Your task to perform on an android device: toggle location history Image 0: 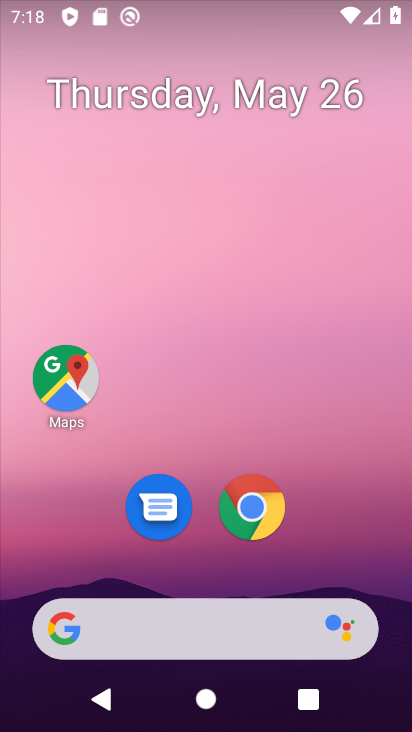
Step 0: drag from (287, 560) to (255, 71)
Your task to perform on an android device: toggle location history Image 1: 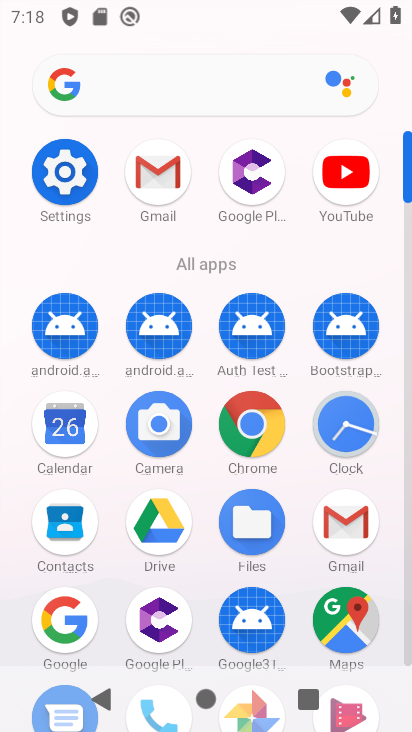
Step 1: click (64, 167)
Your task to perform on an android device: toggle location history Image 2: 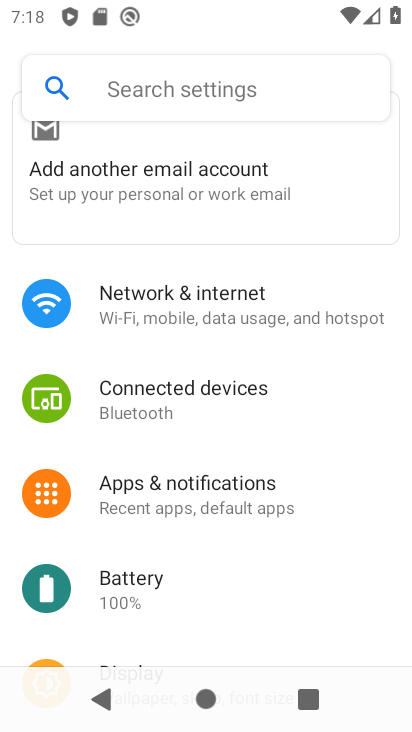
Step 2: drag from (143, 573) to (295, 3)
Your task to perform on an android device: toggle location history Image 3: 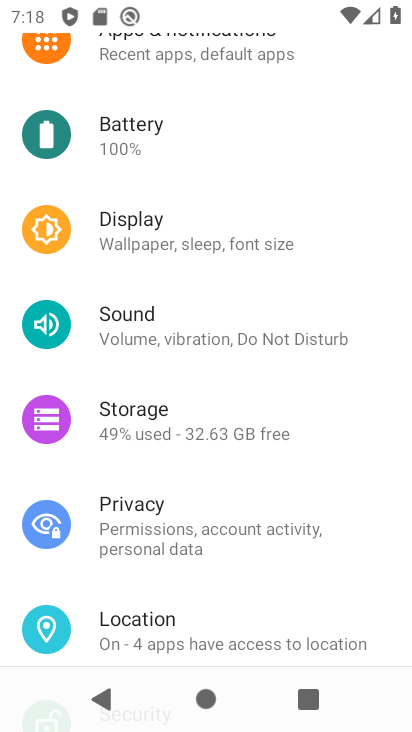
Step 3: drag from (135, 594) to (276, 4)
Your task to perform on an android device: toggle location history Image 4: 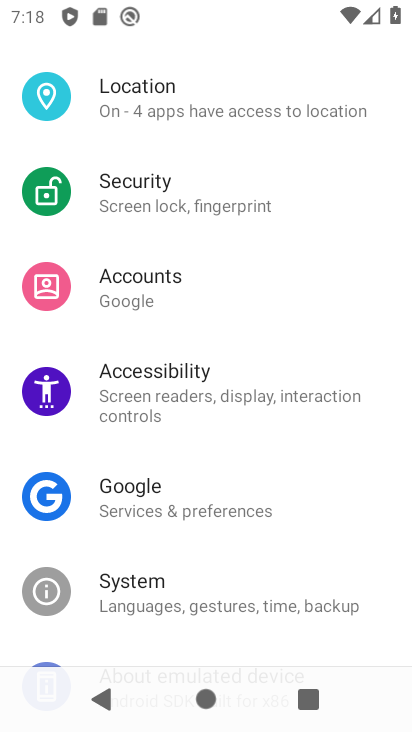
Step 4: click (189, 123)
Your task to perform on an android device: toggle location history Image 5: 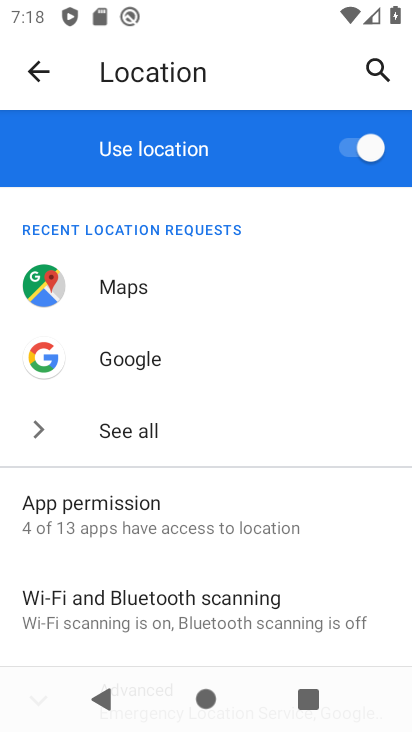
Step 5: drag from (122, 570) to (206, 74)
Your task to perform on an android device: toggle location history Image 6: 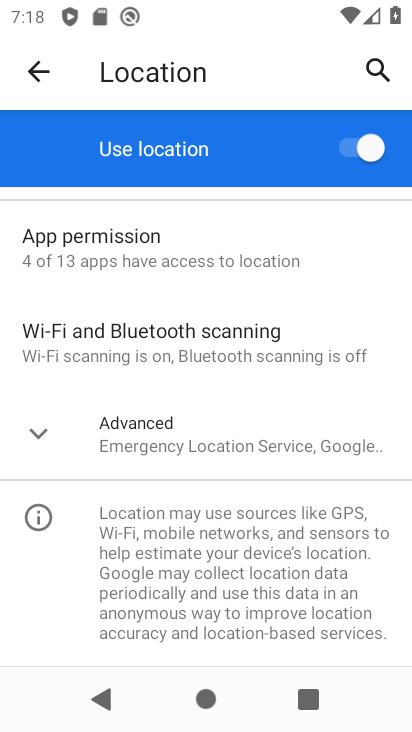
Step 6: click (119, 452)
Your task to perform on an android device: toggle location history Image 7: 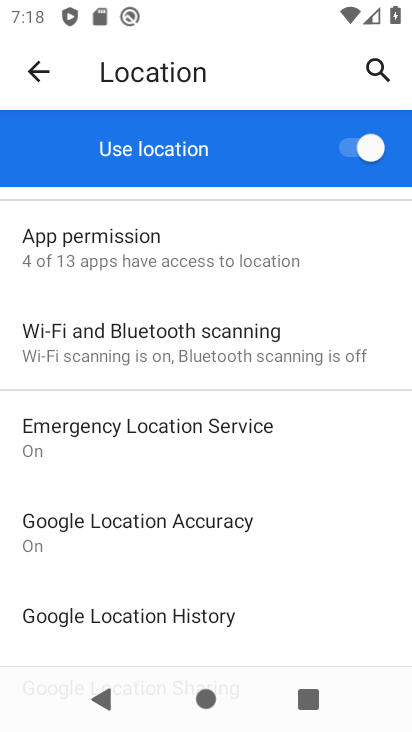
Step 7: click (149, 613)
Your task to perform on an android device: toggle location history Image 8: 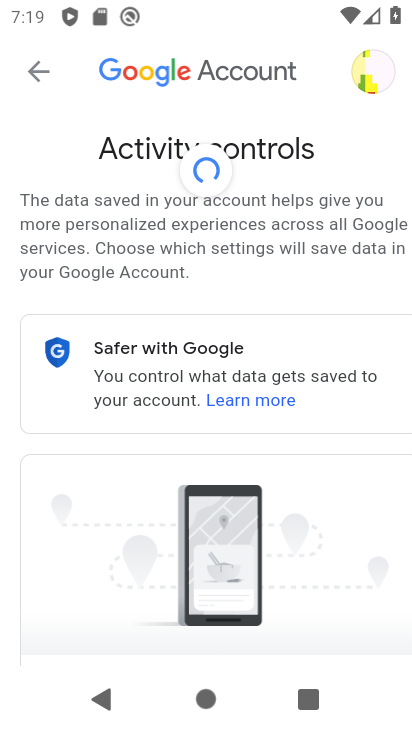
Step 8: drag from (149, 613) to (271, 107)
Your task to perform on an android device: toggle location history Image 9: 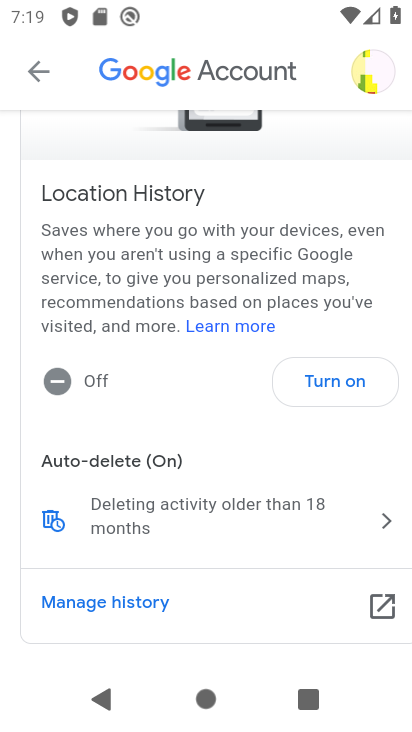
Step 9: click (320, 385)
Your task to perform on an android device: toggle location history Image 10: 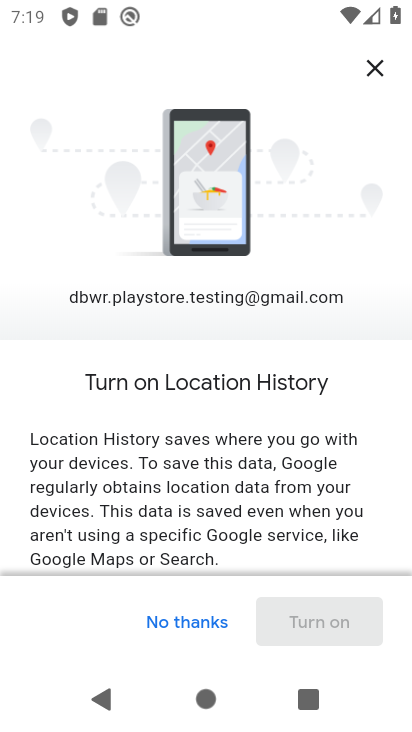
Step 10: drag from (260, 490) to (265, 9)
Your task to perform on an android device: toggle location history Image 11: 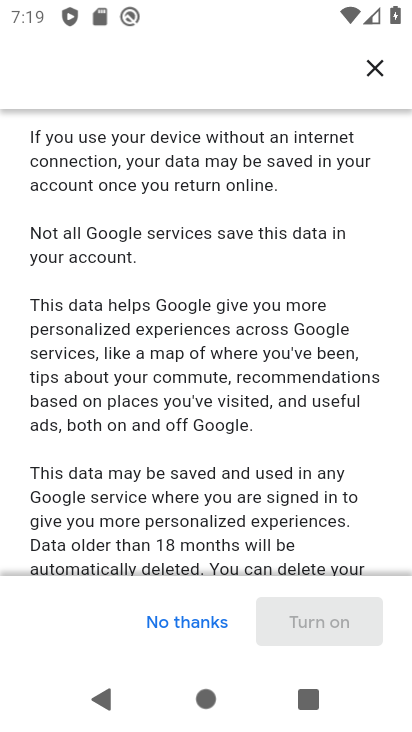
Step 11: drag from (214, 486) to (289, 21)
Your task to perform on an android device: toggle location history Image 12: 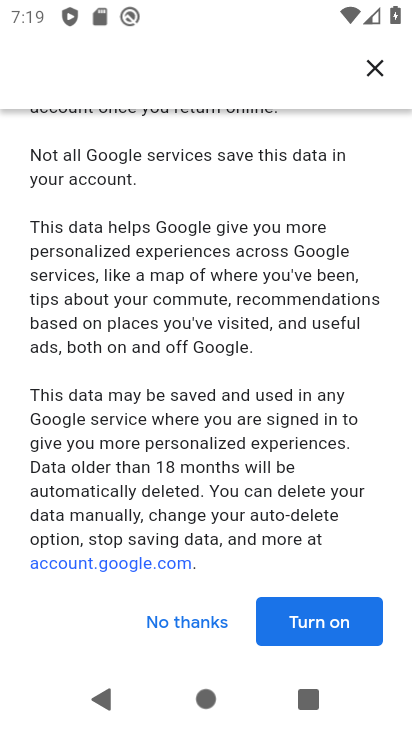
Step 12: click (268, 627)
Your task to perform on an android device: toggle location history Image 13: 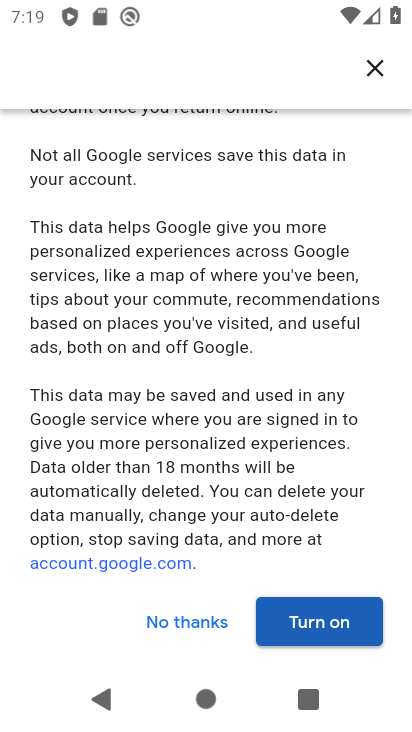
Step 13: click (321, 632)
Your task to perform on an android device: toggle location history Image 14: 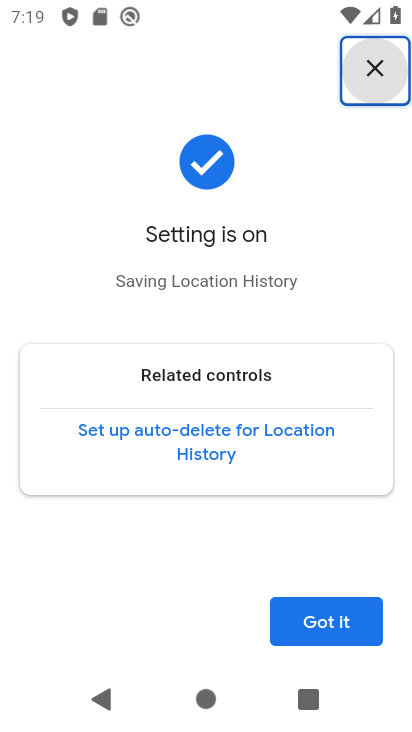
Step 14: click (321, 632)
Your task to perform on an android device: toggle location history Image 15: 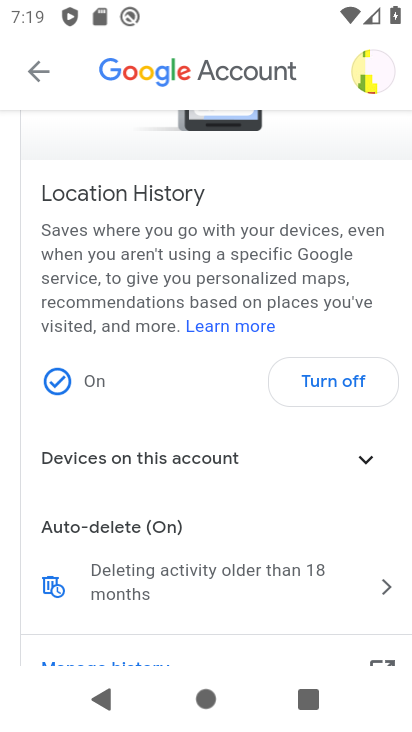
Step 15: task complete